Your task to perform on an android device: Open Yahoo.com Image 0: 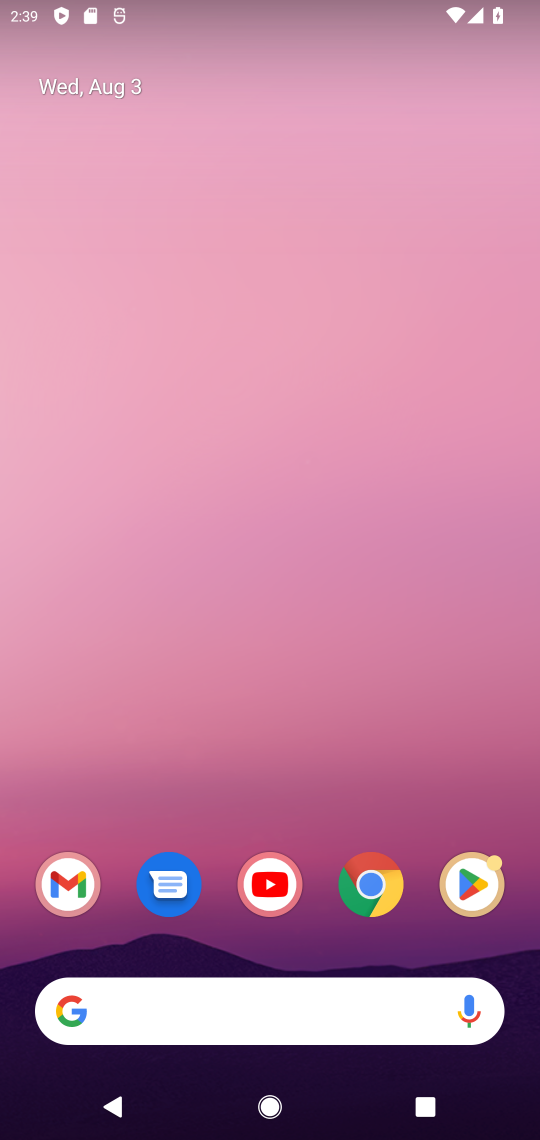
Step 0: click (242, 1040)
Your task to perform on an android device: Open Yahoo.com Image 1: 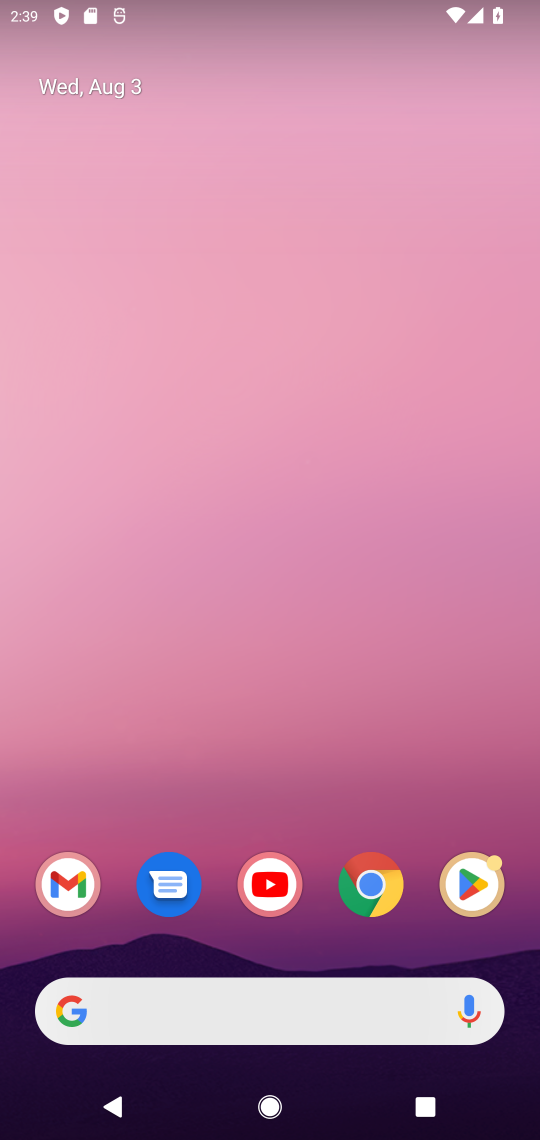
Step 1: click (272, 1008)
Your task to perform on an android device: Open Yahoo.com Image 2: 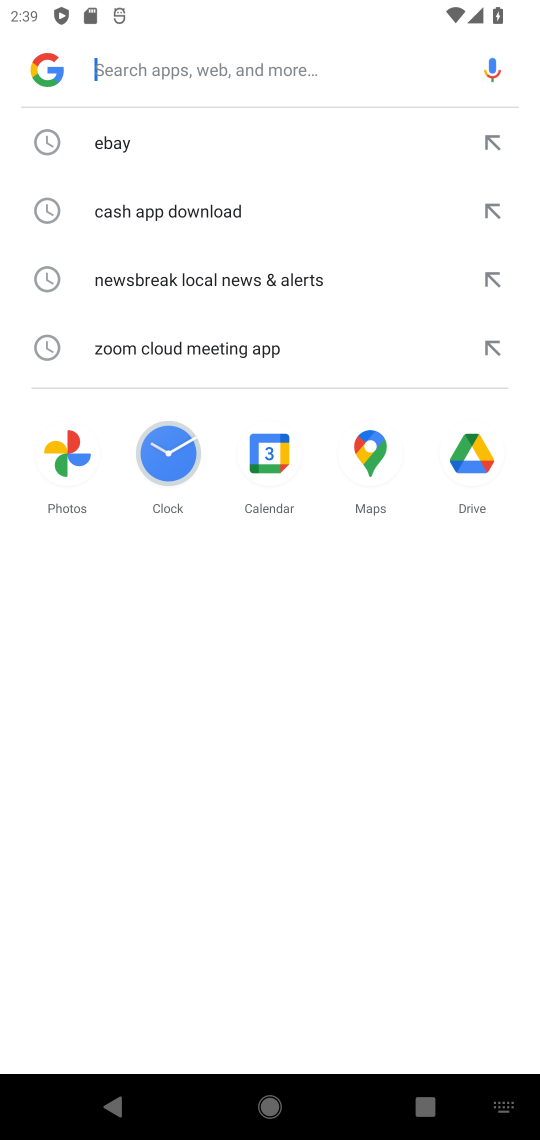
Step 2: type "yahoo.com"
Your task to perform on an android device: Open Yahoo.com Image 3: 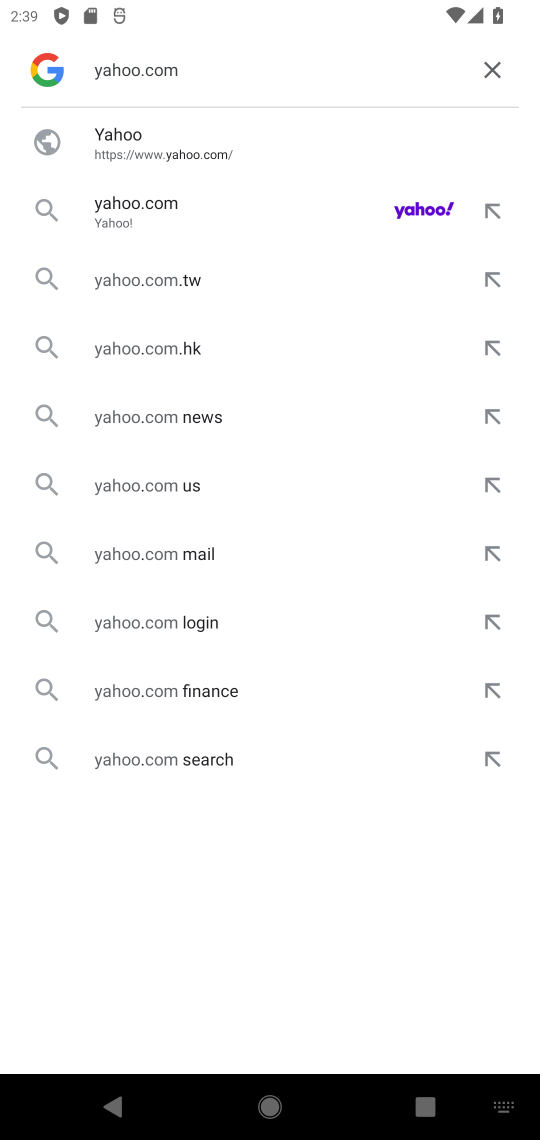
Step 3: click (216, 143)
Your task to perform on an android device: Open Yahoo.com Image 4: 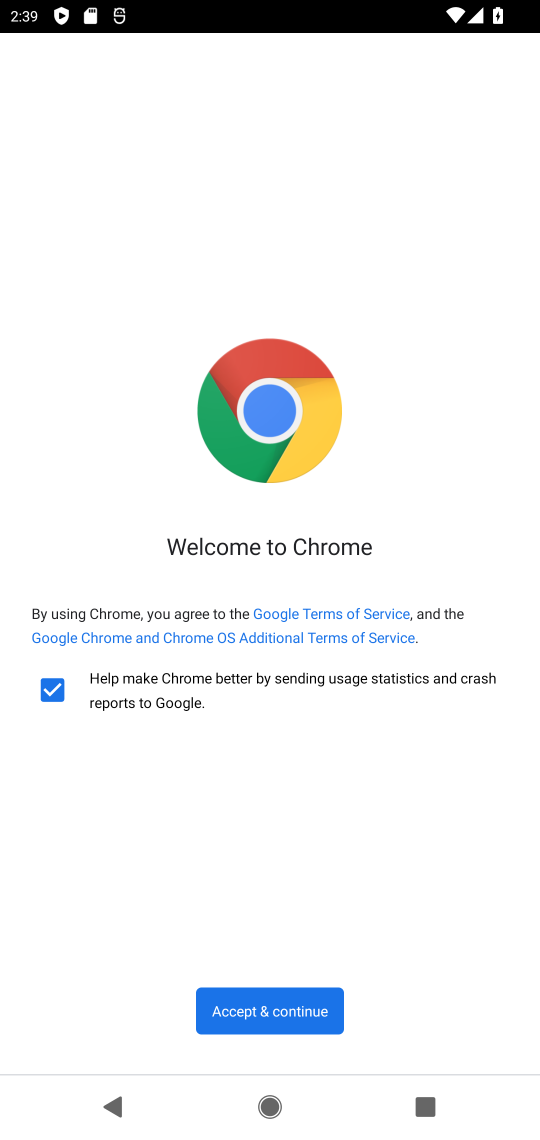
Step 4: click (290, 988)
Your task to perform on an android device: Open Yahoo.com Image 5: 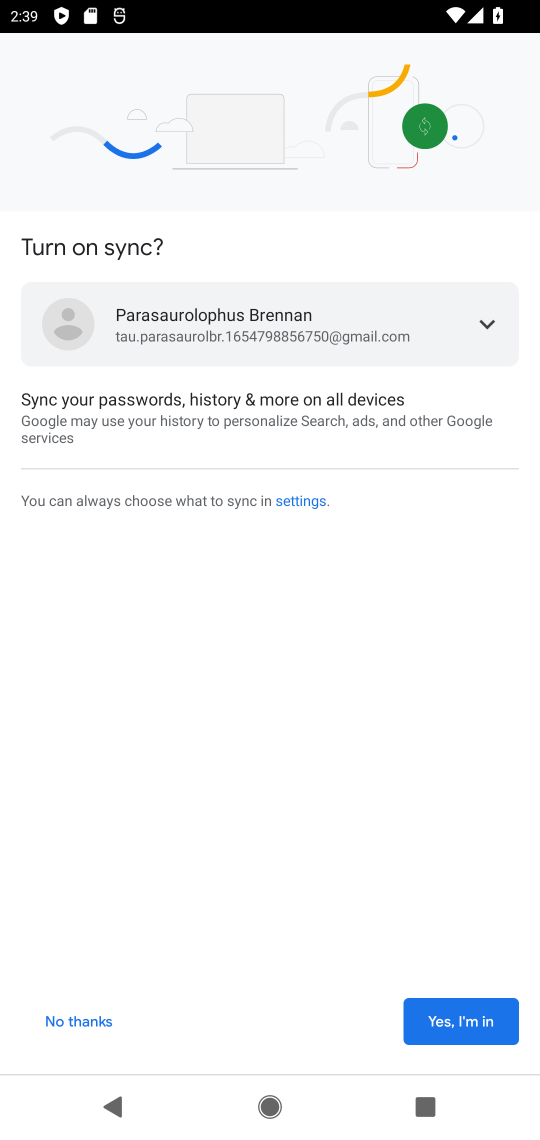
Step 5: click (452, 1007)
Your task to perform on an android device: Open Yahoo.com Image 6: 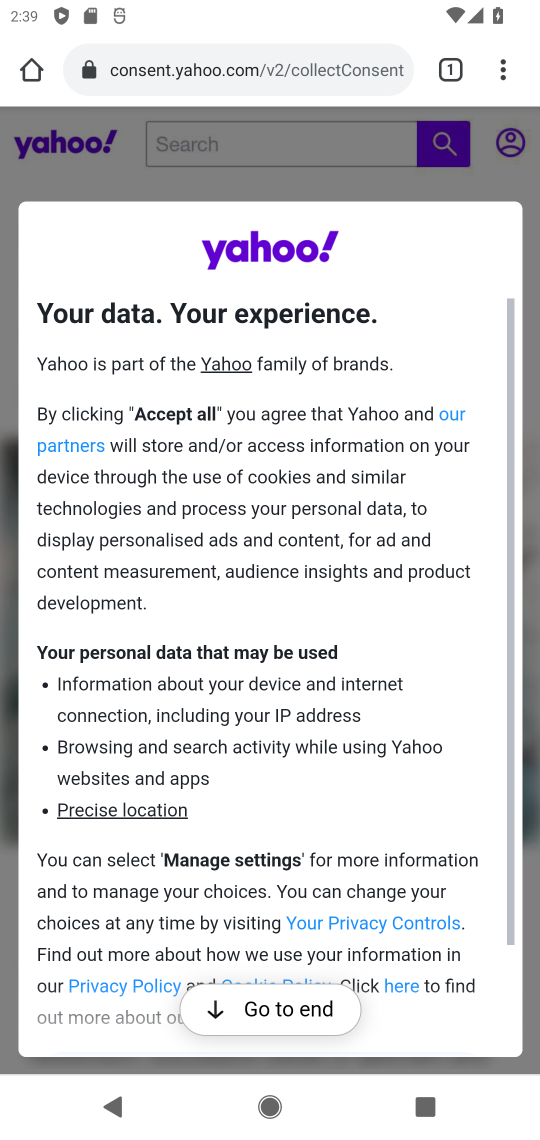
Step 6: task complete